Your task to perform on an android device: Search for "razer blade" on bestbuy, select the first entry, and add it to the cart. Image 0: 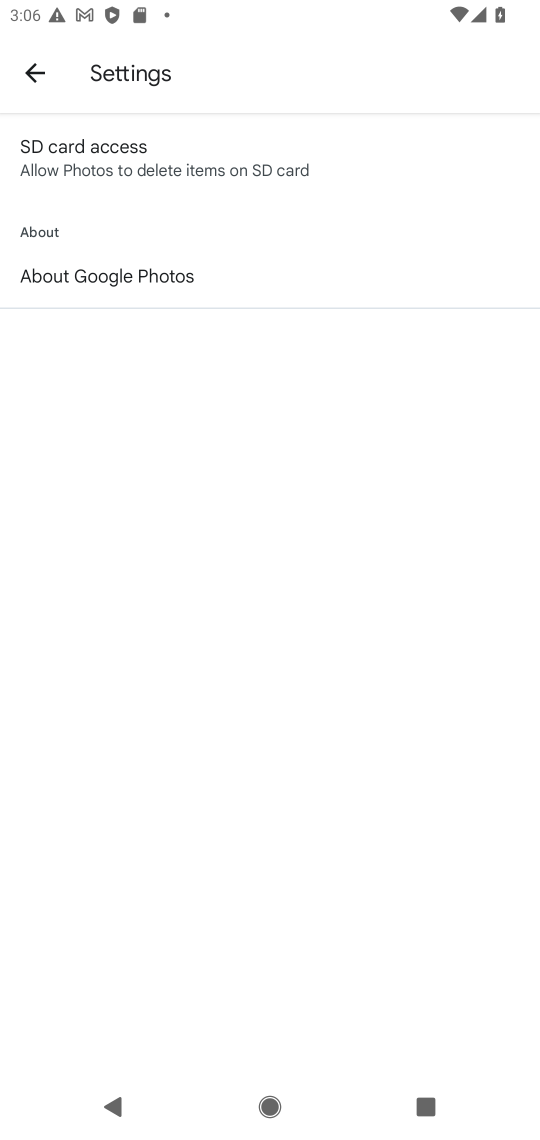
Step 0: press home button
Your task to perform on an android device: Search for "razer blade" on bestbuy, select the first entry, and add it to the cart. Image 1: 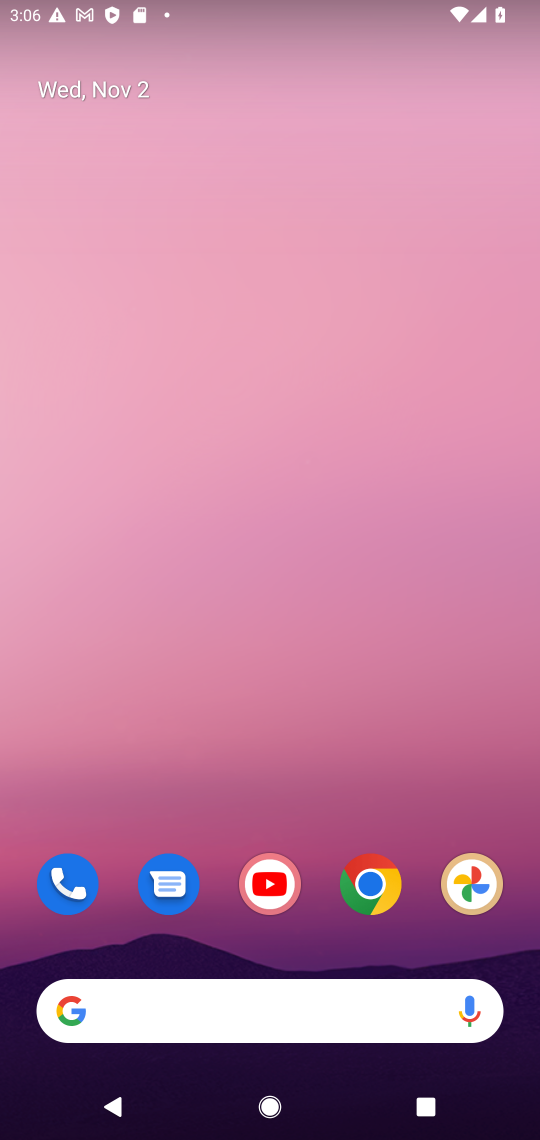
Step 1: click (366, 883)
Your task to perform on an android device: Search for "razer blade" on bestbuy, select the first entry, and add it to the cart. Image 2: 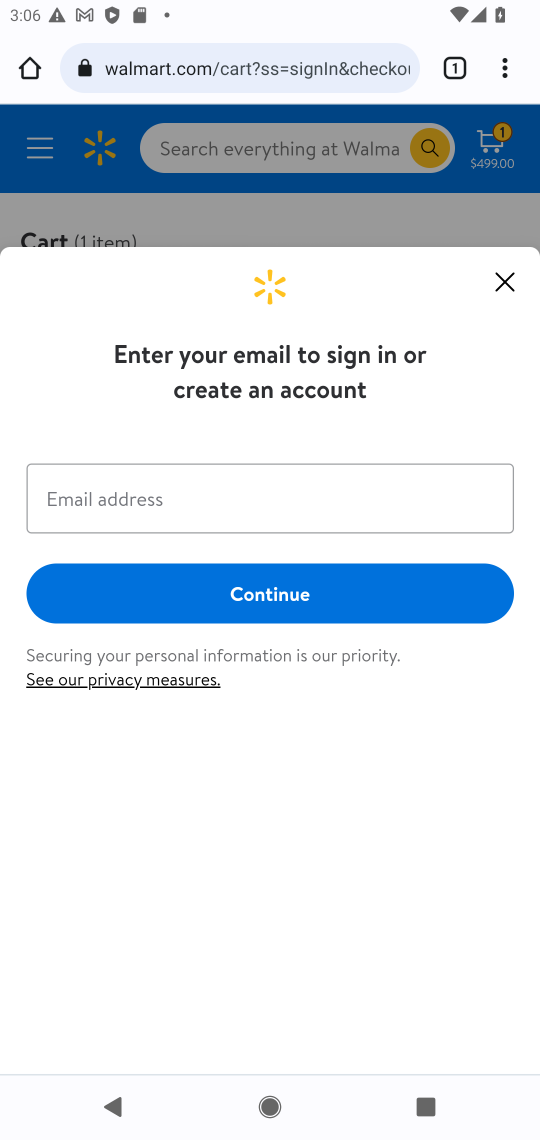
Step 2: click (240, 65)
Your task to perform on an android device: Search for "razer blade" on bestbuy, select the first entry, and add it to the cart. Image 3: 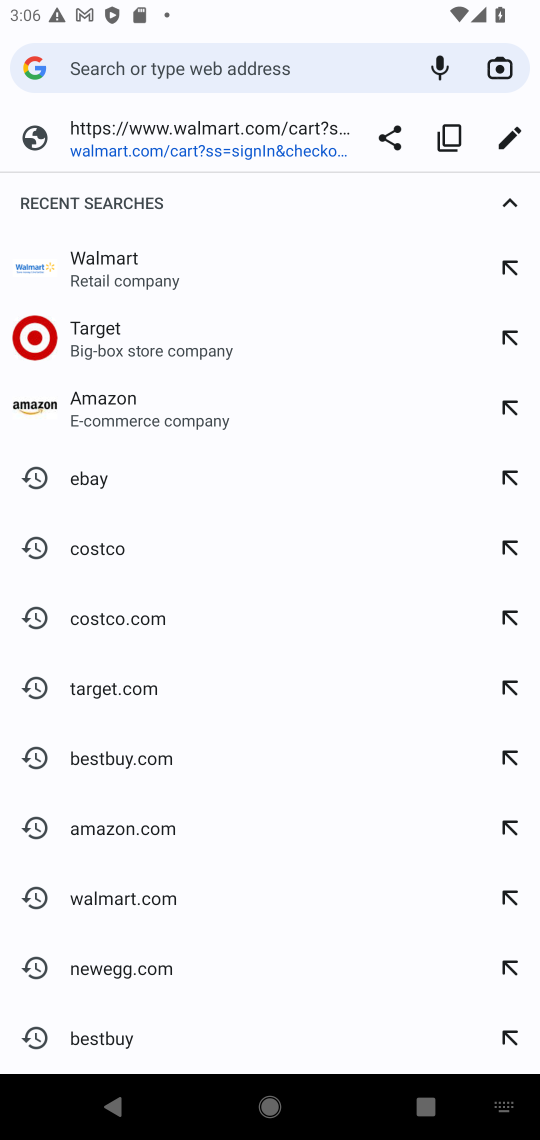
Step 3: type "bestbuy"
Your task to perform on an android device: Search for "razer blade" on bestbuy, select the first entry, and add it to the cart. Image 4: 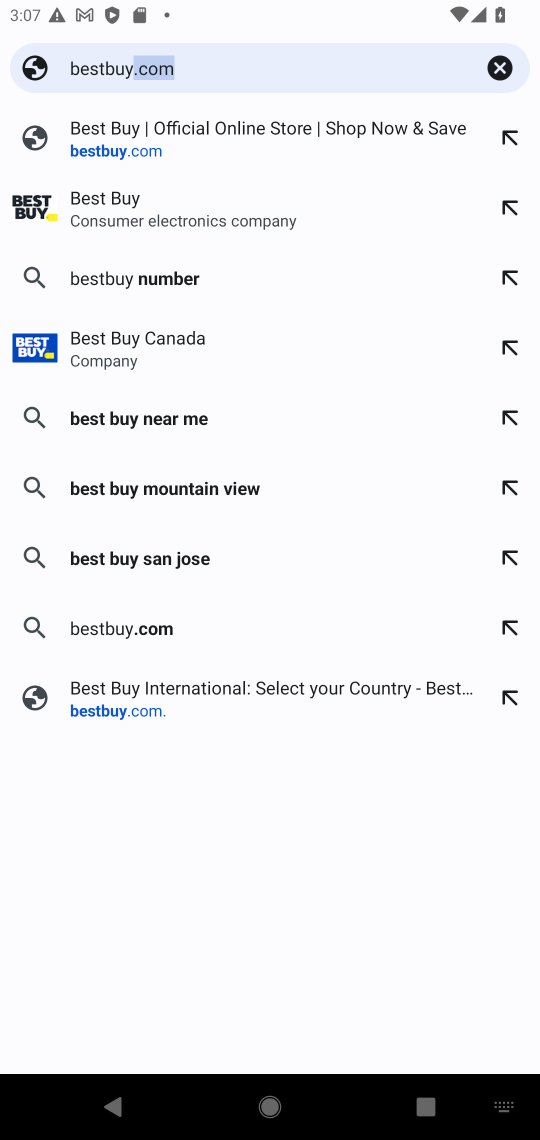
Step 4: click (99, 208)
Your task to perform on an android device: Search for "razer blade" on bestbuy, select the first entry, and add it to the cart. Image 5: 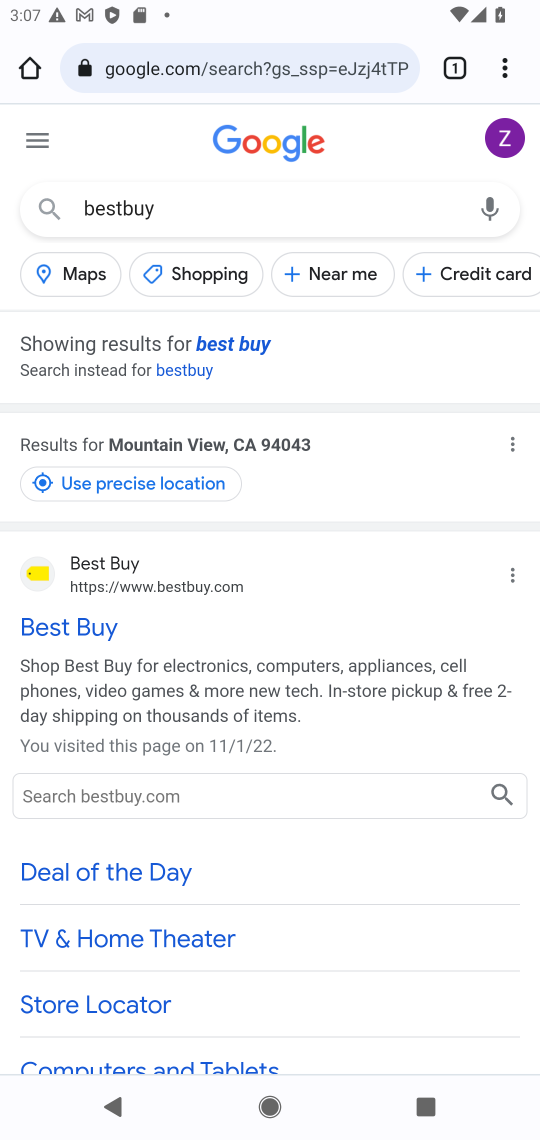
Step 5: click (55, 625)
Your task to perform on an android device: Search for "razer blade" on bestbuy, select the first entry, and add it to the cart. Image 6: 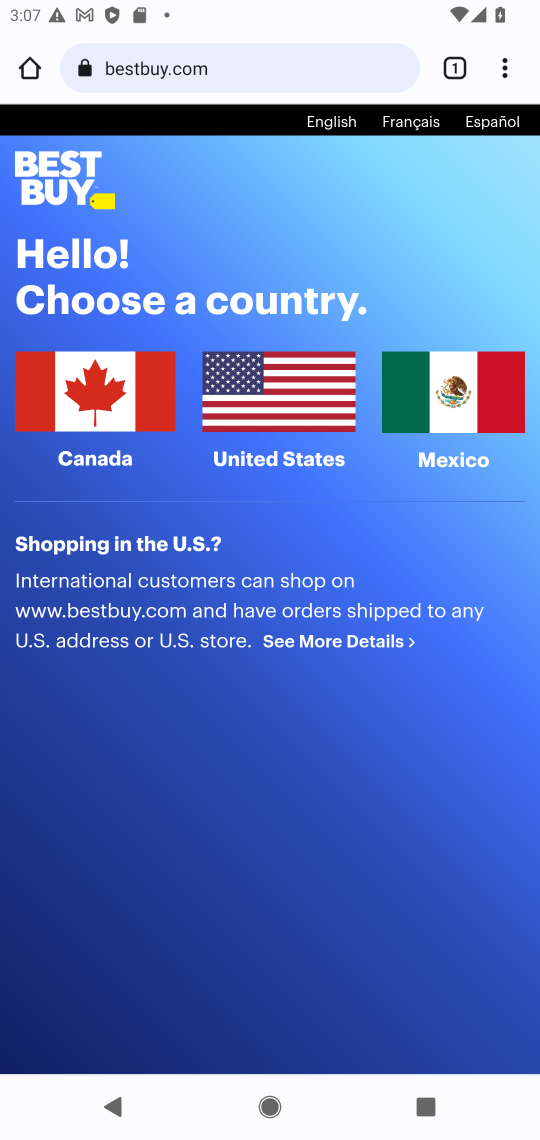
Step 6: click (270, 393)
Your task to perform on an android device: Search for "razer blade" on bestbuy, select the first entry, and add it to the cart. Image 7: 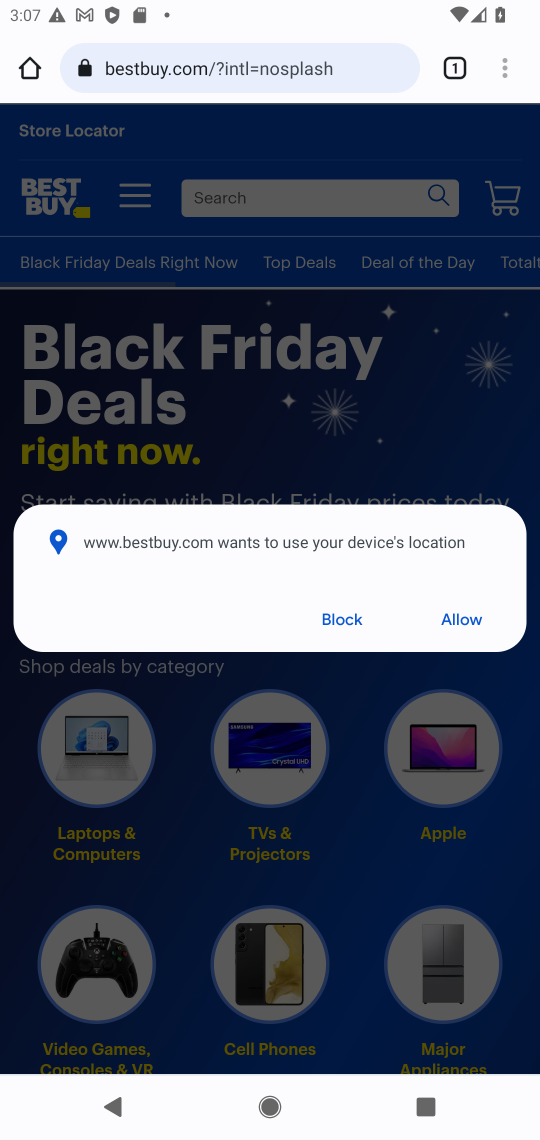
Step 7: click (459, 613)
Your task to perform on an android device: Search for "razer blade" on bestbuy, select the first entry, and add it to the cart. Image 8: 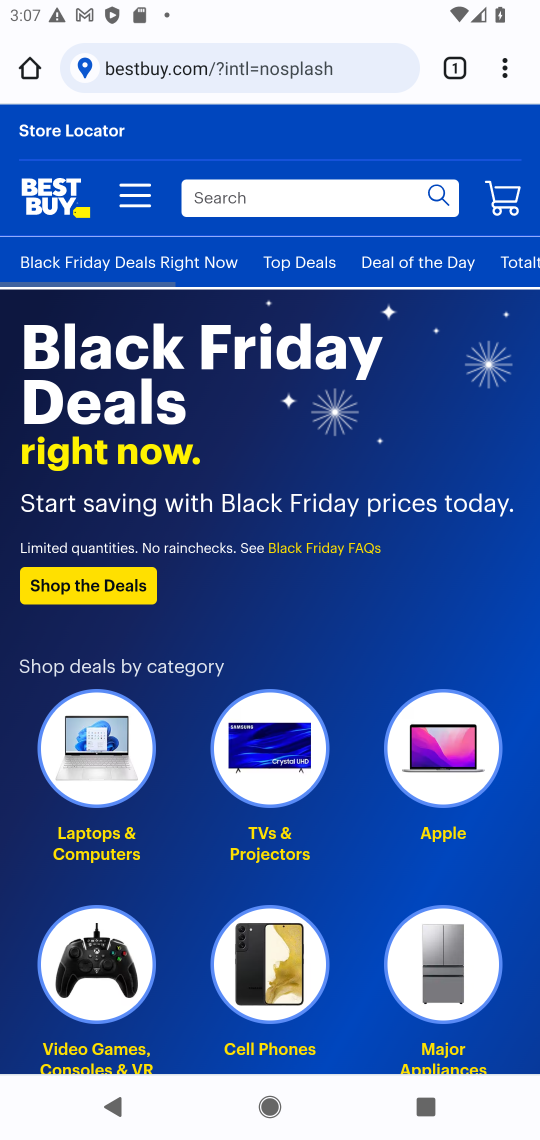
Step 8: click (271, 196)
Your task to perform on an android device: Search for "razer blade" on bestbuy, select the first entry, and add it to the cart. Image 9: 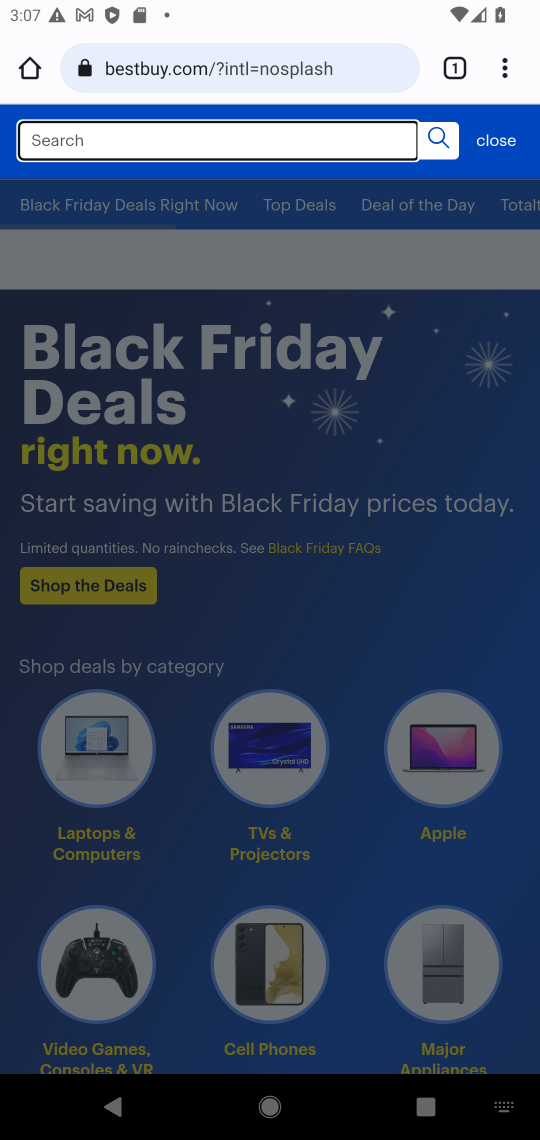
Step 9: type "razer blade"
Your task to perform on an android device: Search for "razer blade" on bestbuy, select the first entry, and add it to the cart. Image 10: 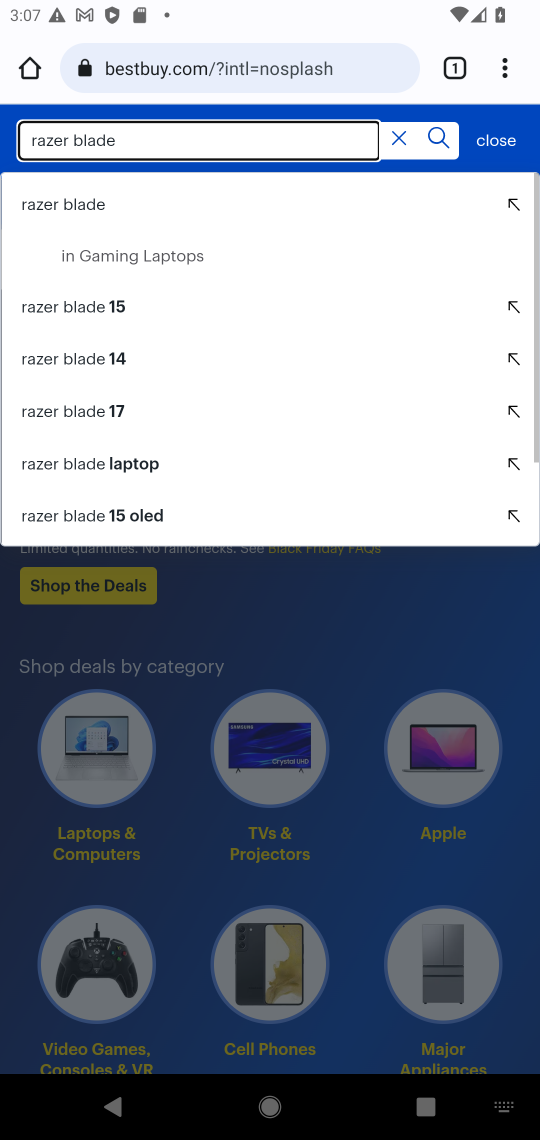
Step 10: click (439, 142)
Your task to perform on an android device: Search for "razer blade" on bestbuy, select the first entry, and add it to the cart. Image 11: 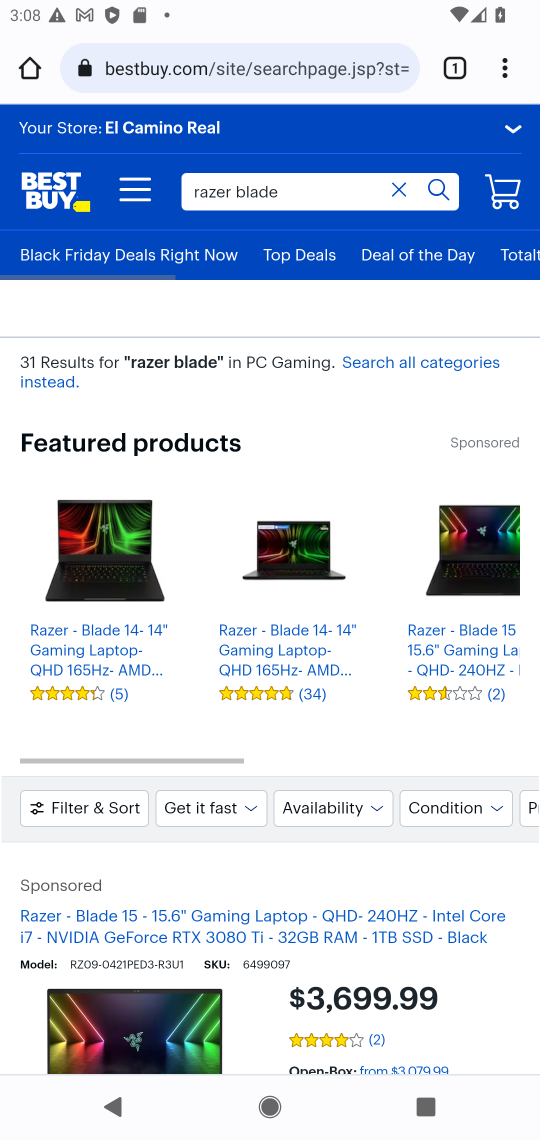
Step 11: click (284, 932)
Your task to perform on an android device: Search for "razer blade" on bestbuy, select the first entry, and add it to the cart. Image 12: 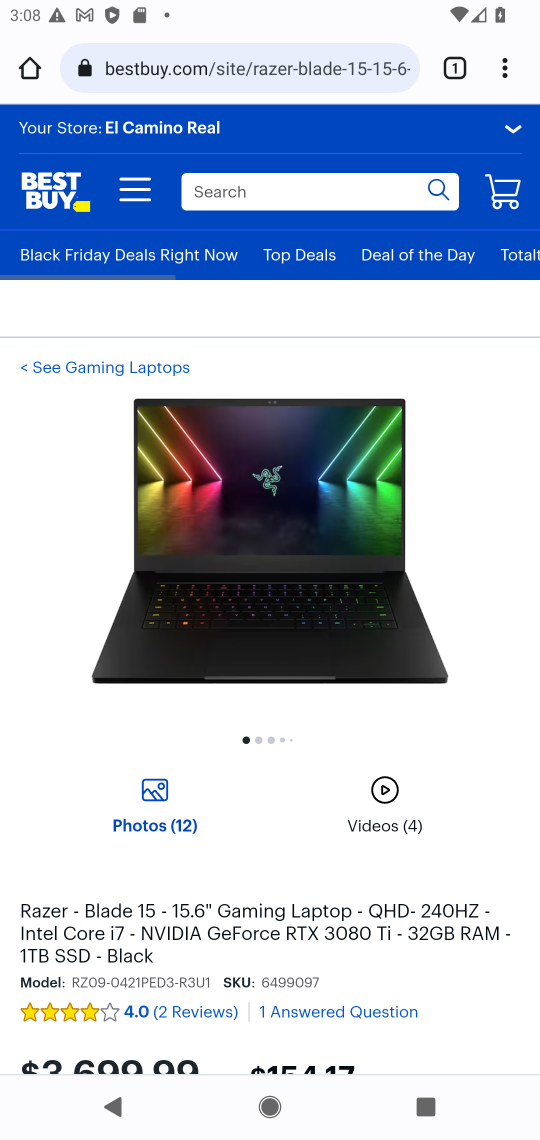
Step 12: drag from (292, 931) to (309, 416)
Your task to perform on an android device: Search for "razer blade" on bestbuy, select the first entry, and add it to the cart. Image 13: 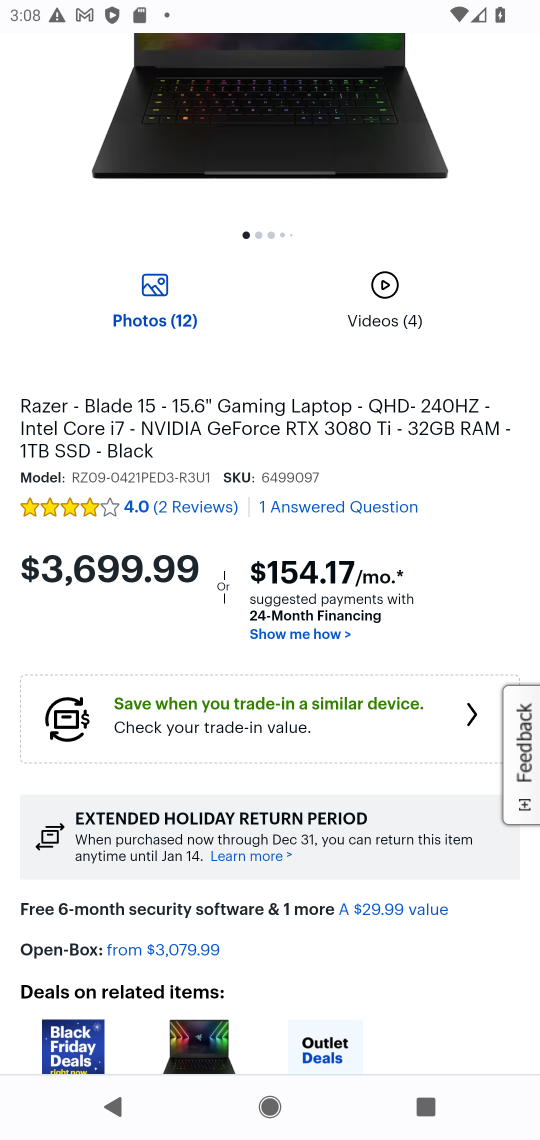
Step 13: drag from (299, 735) to (302, 415)
Your task to perform on an android device: Search for "razer blade" on bestbuy, select the first entry, and add it to the cart. Image 14: 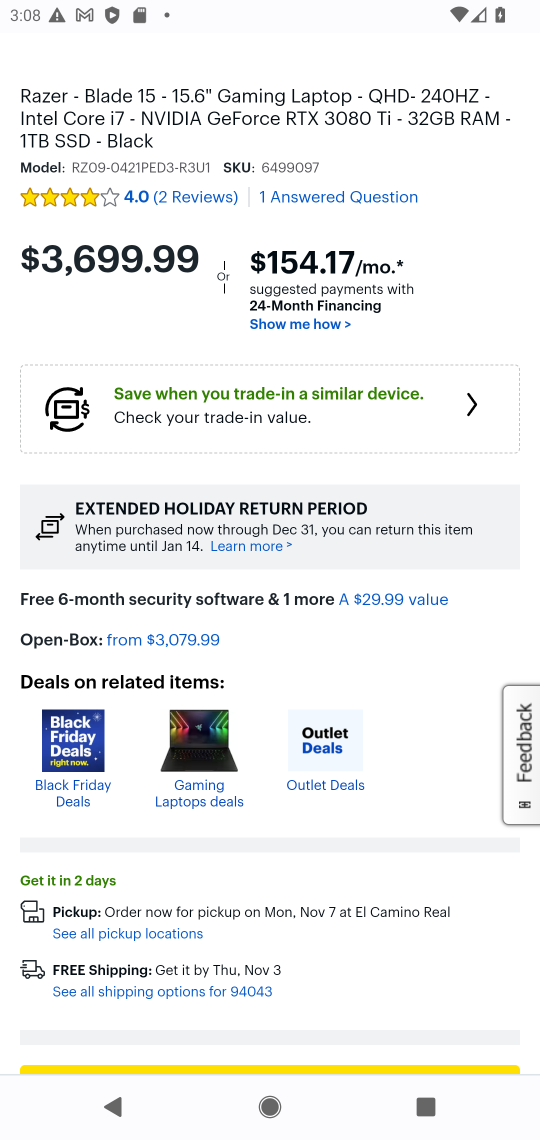
Step 14: drag from (340, 858) to (353, 436)
Your task to perform on an android device: Search for "razer blade" on bestbuy, select the first entry, and add it to the cart. Image 15: 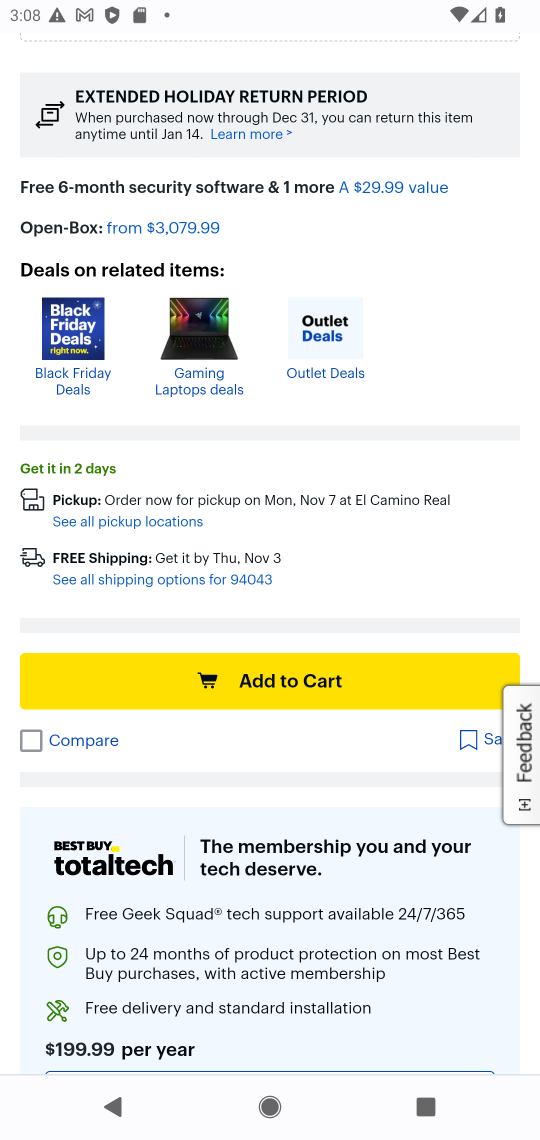
Step 15: click (266, 678)
Your task to perform on an android device: Search for "razer blade" on bestbuy, select the first entry, and add it to the cart. Image 16: 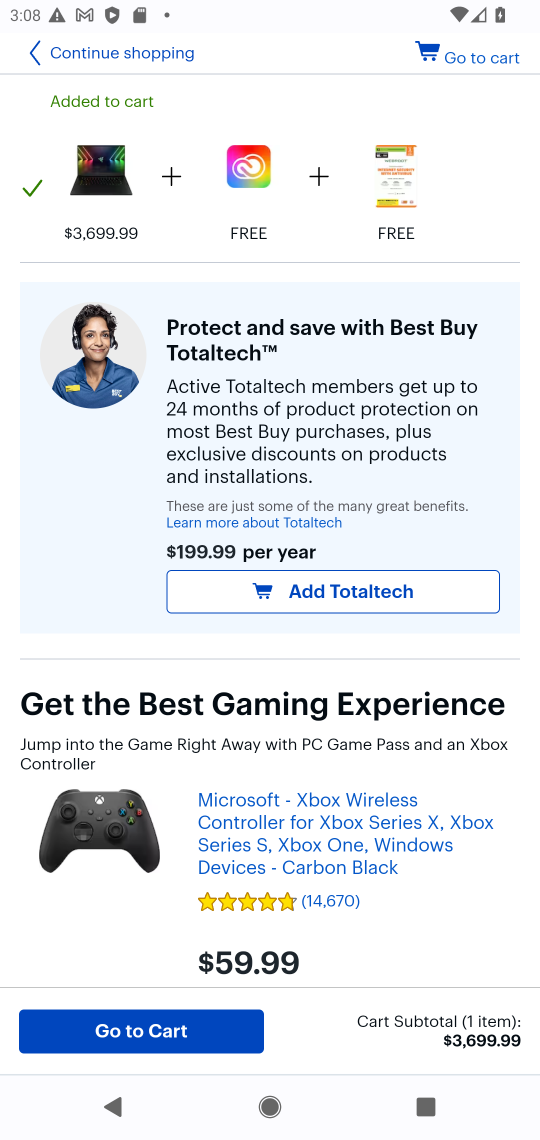
Step 16: click (140, 1033)
Your task to perform on an android device: Search for "razer blade" on bestbuy, select the first entry, and add it to the cart. Image 17: 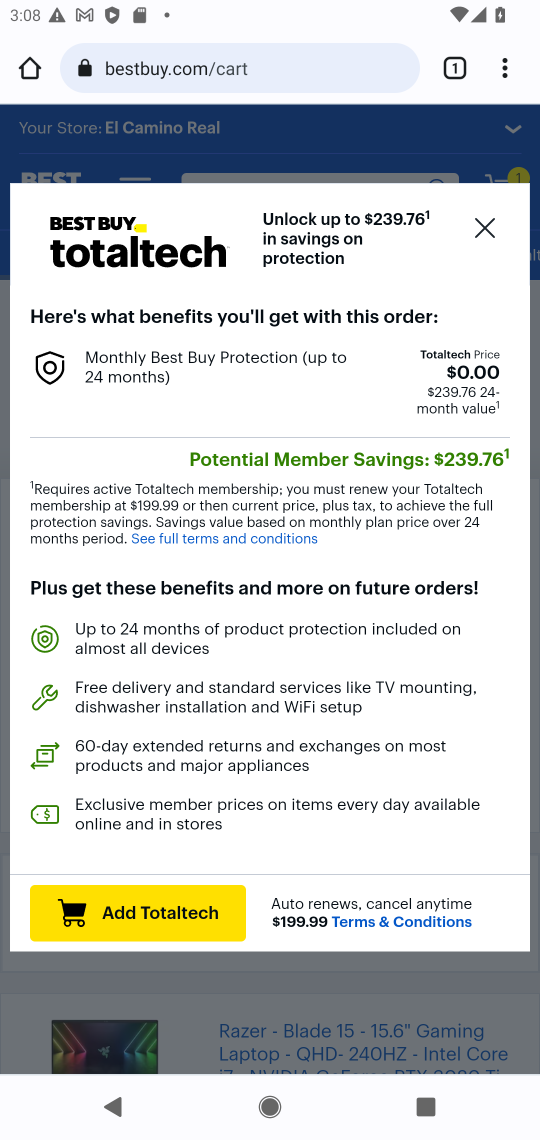
Step 17: click (482, 224)
Your task to perform on an android device: Search for "razer blade" on bestbuy, select the first entry, and add it to the cart. Image 18: 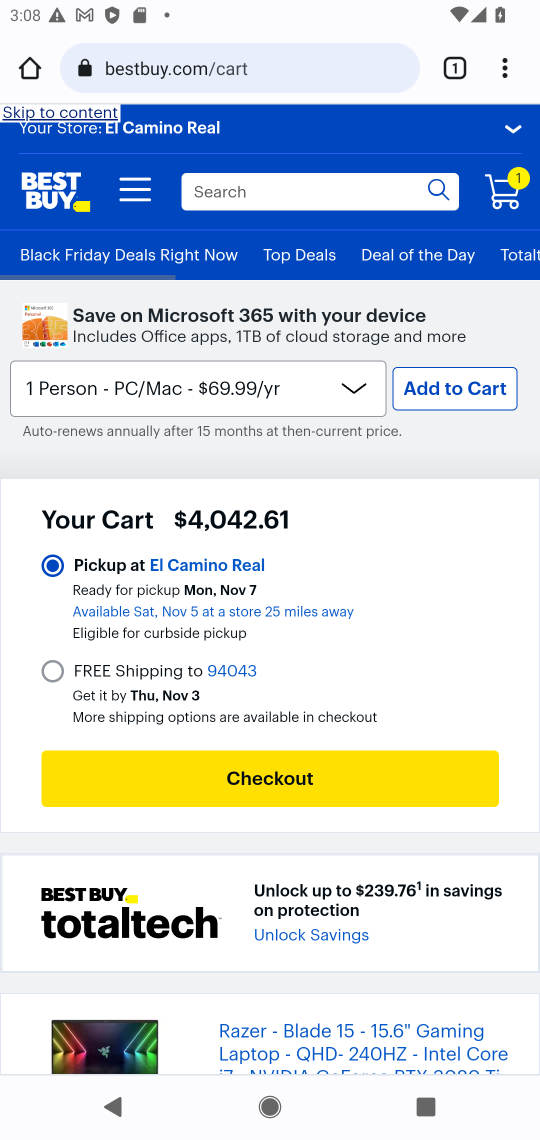
Step 18: task complete